Your task to perform on an android device: open chrome privacy settings Image 0: 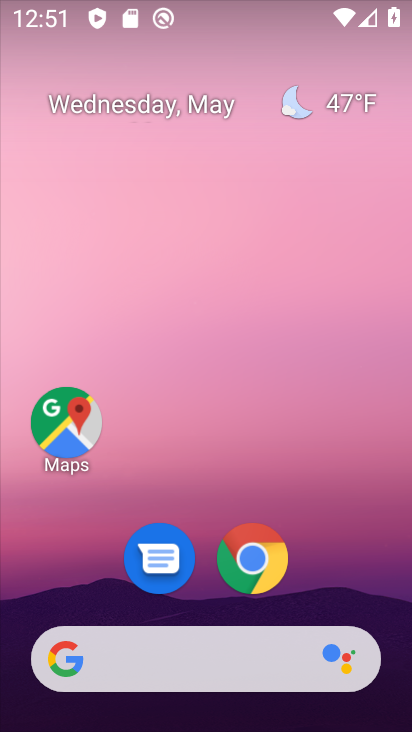
Step 0: click (227, 575)
Your task to perform on an android device: open chrome privacy settings Image 1: 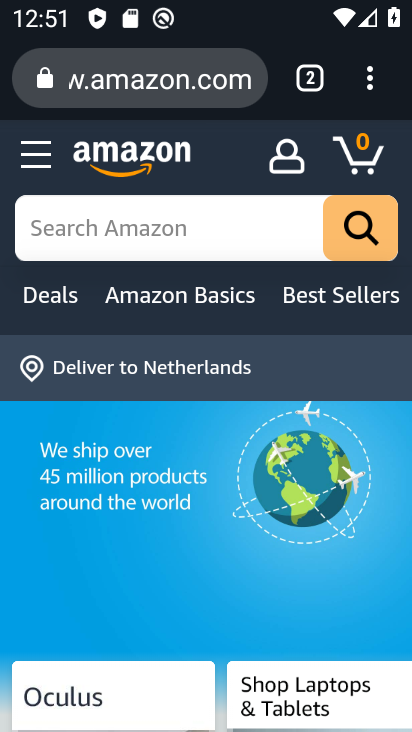
Step 1: click (378, 94)
Your task to perform on an android device: open chrome privacy settings Image 2: 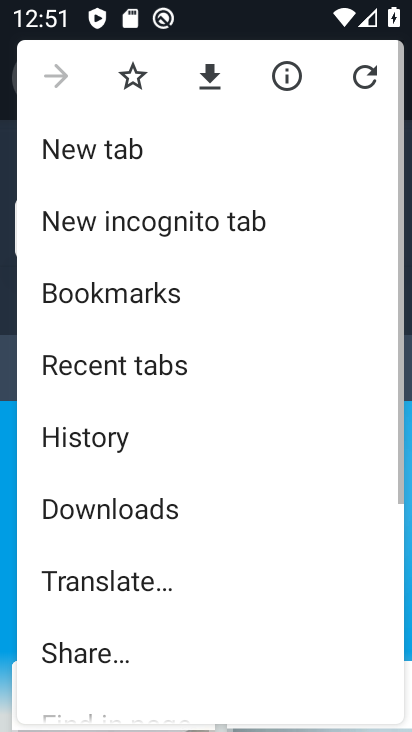
Step 2: drag from (91, 624) to (212, 39)
Your task to perform on an android device: open chrome privacy settings Image 3: 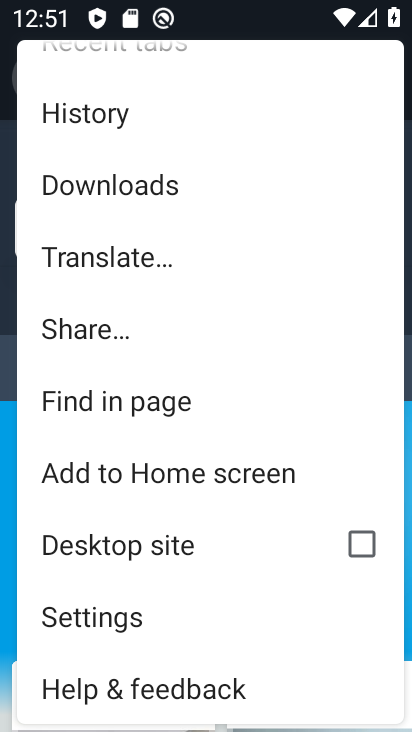
Step 3: click (137, 615)
Your task to perform on an android device: open chrome privacy settings Image 4: 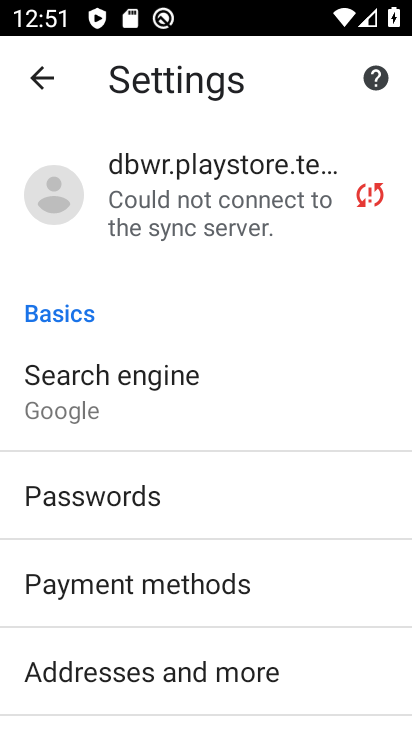
Step 4: drag from (190, 275) to (191, 160)
Your task to perform on an android device: open chrome privacy settings Image 5: 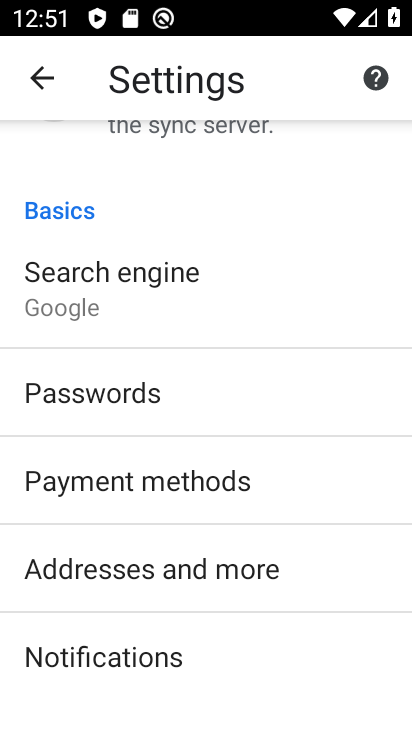
Step 5: drag from (150, 618) to (183, 202)
Your task to perform on an android device: open chrome privacy settings Image 6: 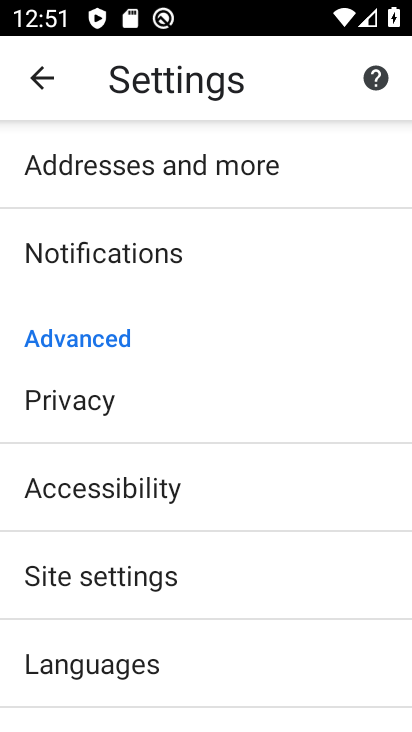
Step 6: click (42, 408)
Your task to perform on an android device: open chrome privacy settings Image 7: 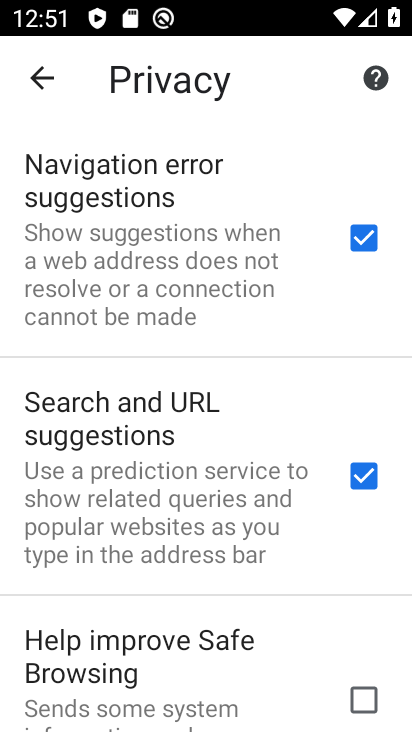
Step 7: task complete